Your task to perform on an android device: Search for logitech g910 on amazon.com, select the first entry, and add it to the cart. Image 0: 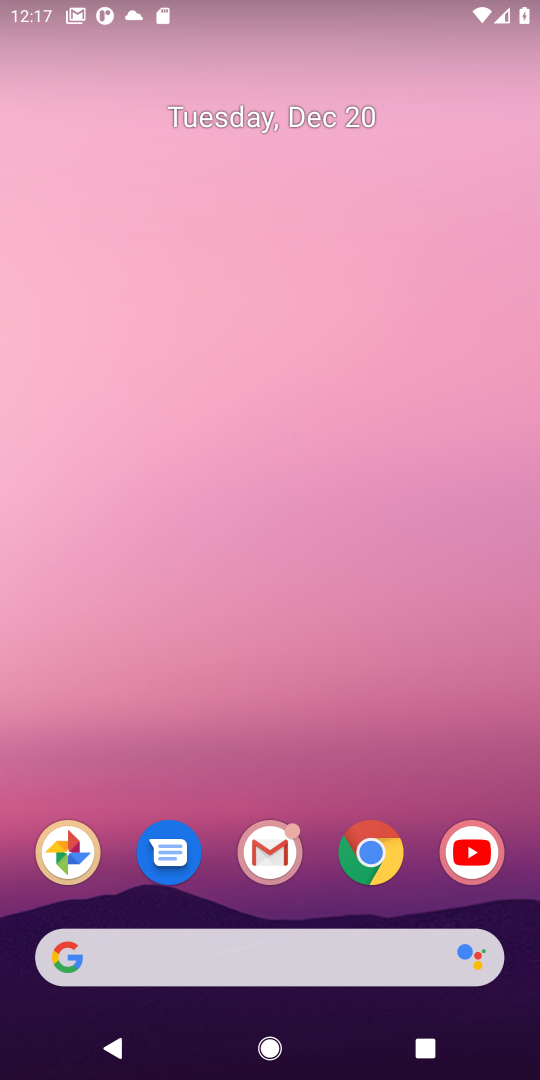
Step 0: click (380, 853)
Your task to perform on an android device: Search for logitech g910 on amazon.com, select the first entry, and add it to the cart. Image 1: 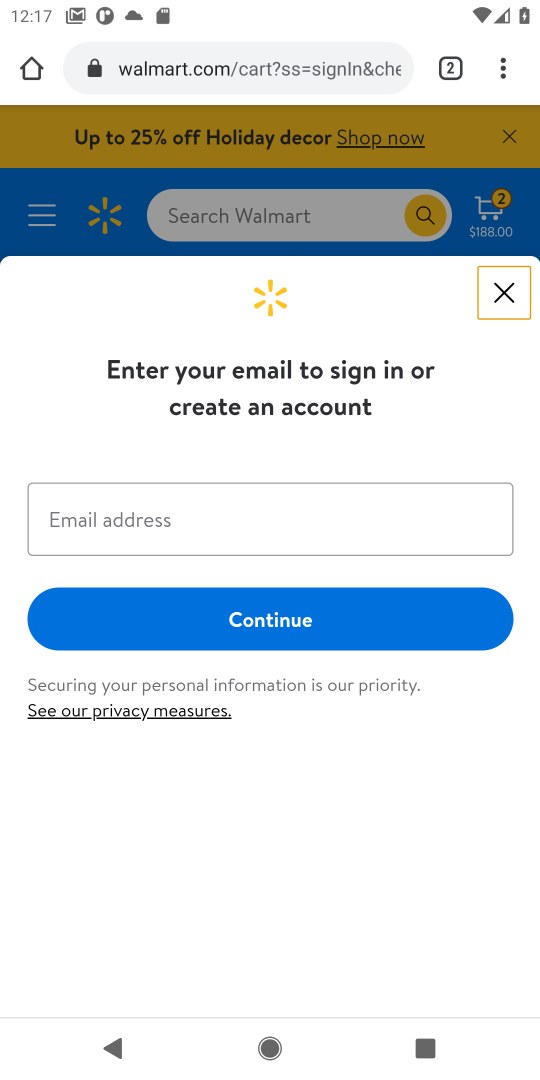
Step 1: click (236, 76)
Your task to perform on an android device: Search for logitech g910 on amazon.com, select the first entry, and add it to the cart. Image 2: 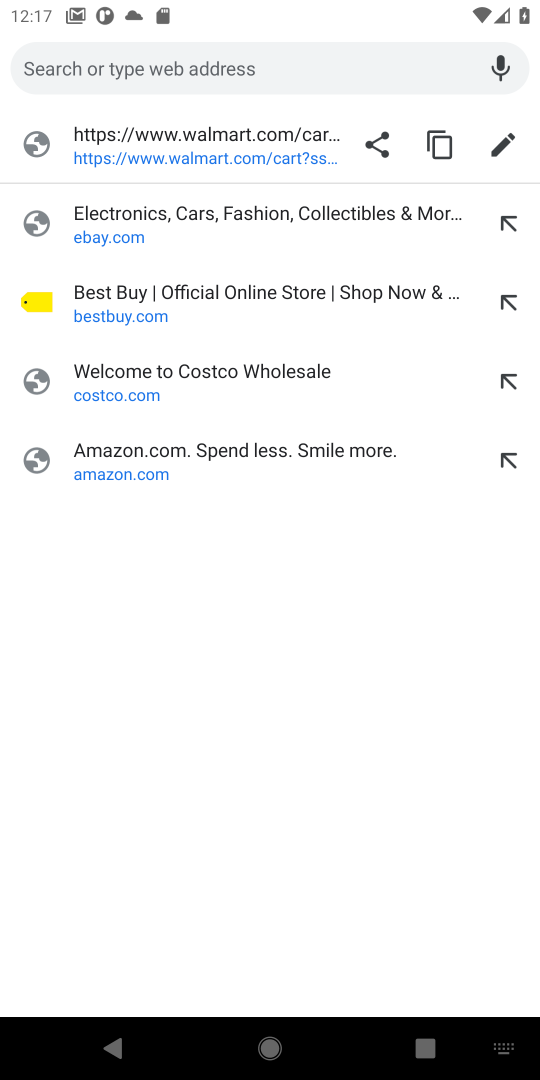
Step 2: click (105, 460)
Your task to perform on an android device: Search for logitech g910 on amazon.com, select the first entry, and add it to the cart. Image 3: 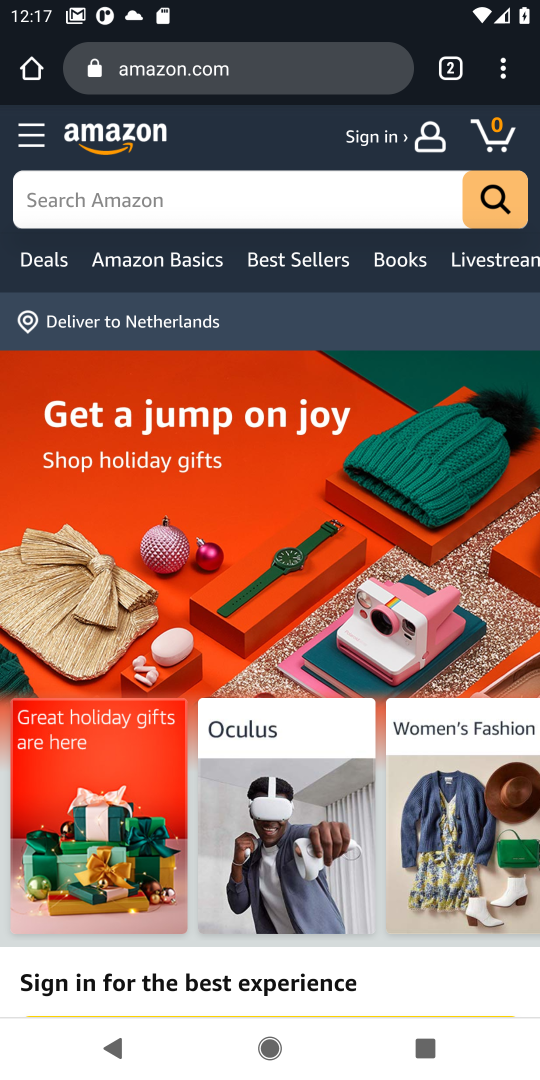
Step 3: click (102, 192)
Your task to perform on an android device: Search for logitech g910 on amazon.com, select the first entry, and add it to the cart. Image 4: 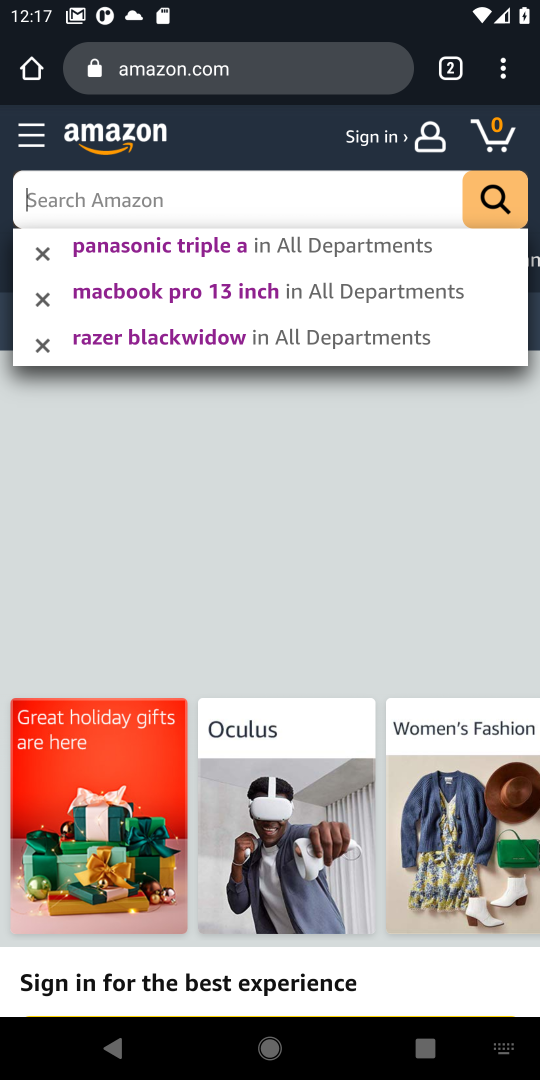
Step 4: type " logitech g910"
Your task to perform on an android device: Search for logitech g910 on amazon.com, select the first entry, and add it to the cart. Image 5: 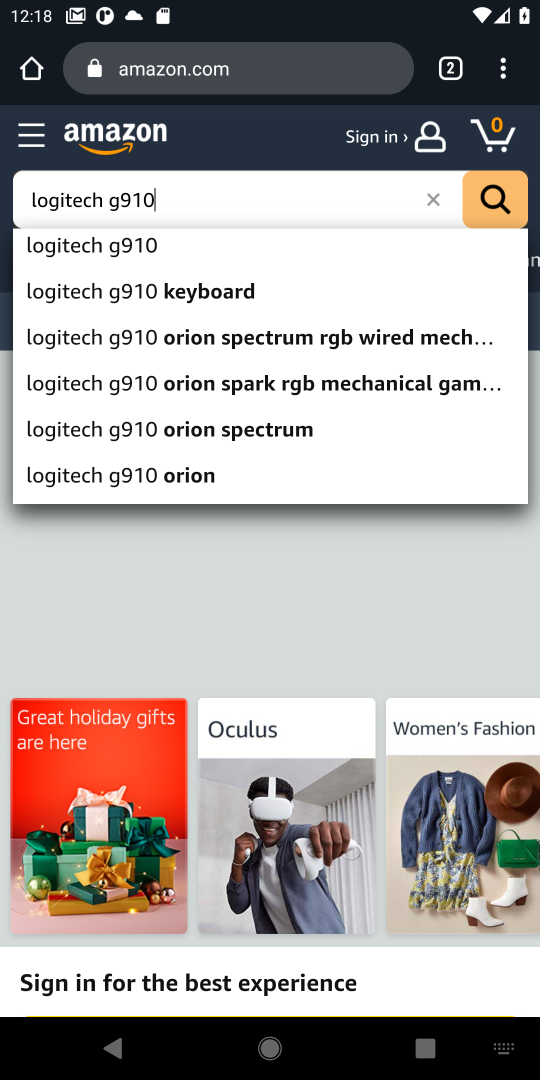
Step 5: click (114, 258)
Your task to perform on an android device: Search for logitech g910 on amazon.com, select the first entry, and add it to the cart. Image 6: 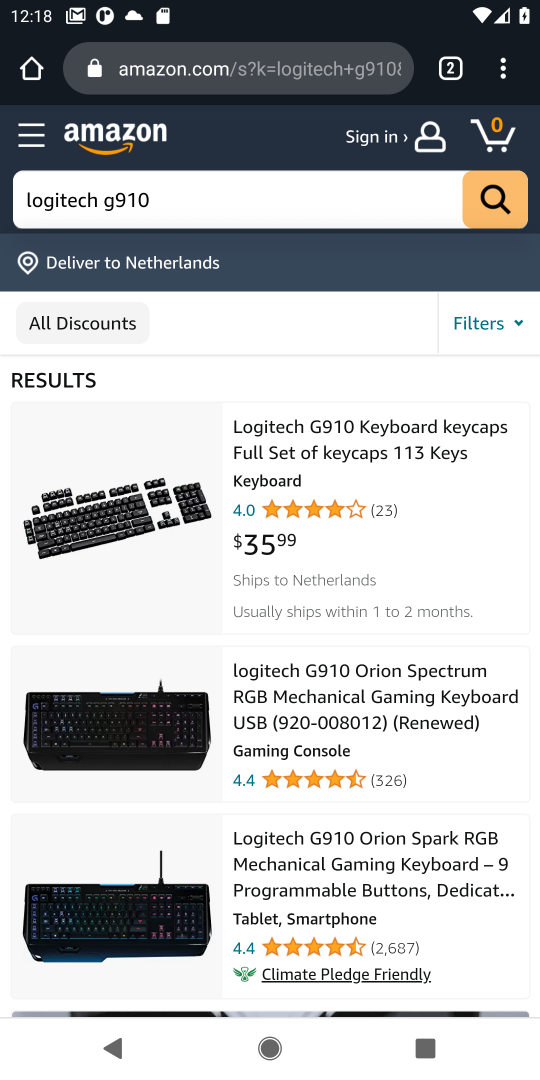
Step 6: click (283, 458)
Your task to perform on an android device: Search for logitech g910 on amazon.com, select the first entry, and add it to the cart. Image 7: 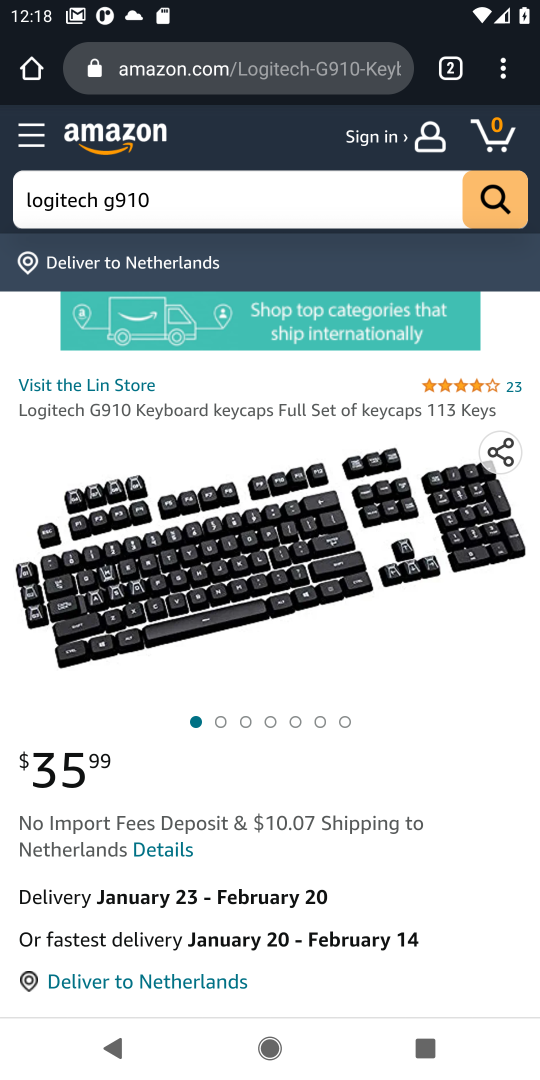
Step 7: drag from (343, 848) to (359, 383)
Your task to perform on an android device: Search for logitech g910 on amazon.com, select the first entry, and add it to the cart. Image 8: 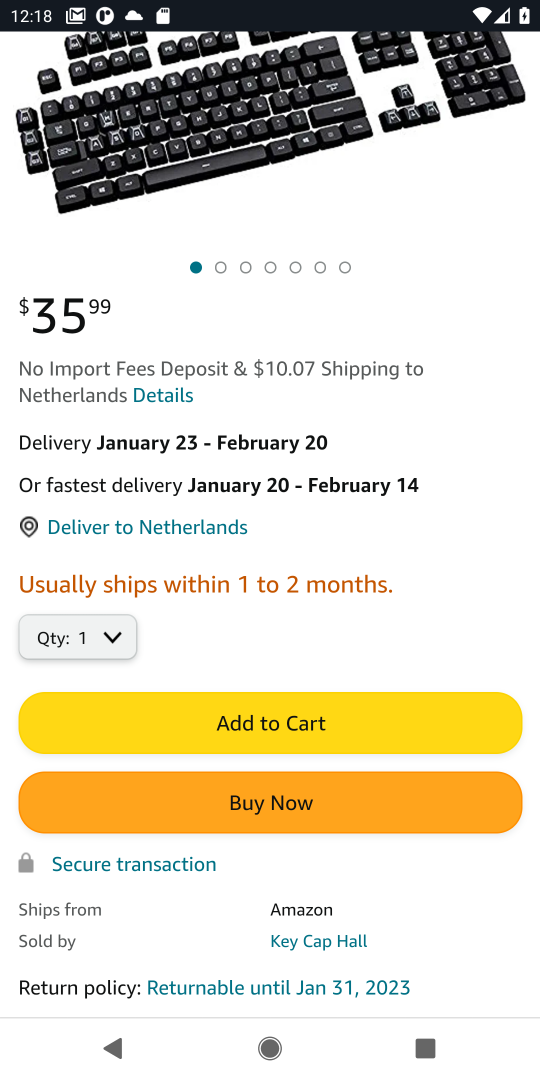
Step 8: click (236, 731)
Your task to perform on an android device: Search for logitech g910 on amazon.com, select the first entry, and add it to the cart. Image 9: 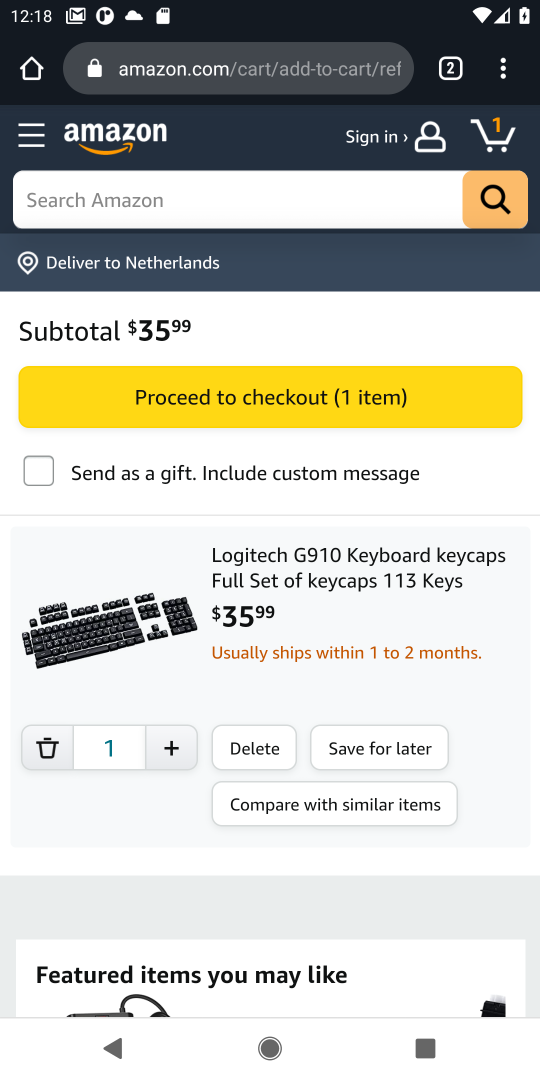
Step 9: task complete